Your task to perform on an android device: delete browsing data in the chrome app Image 0: 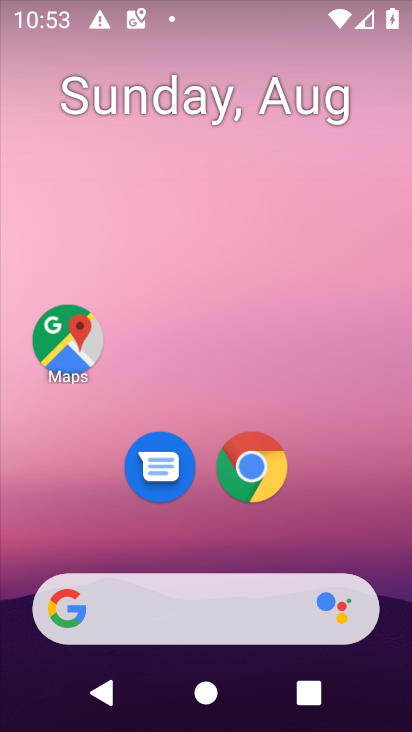
Step 0: drag from (313, 388) to (313, 265)
Your task to perform on an android device: delete browsing data in the chrome app Image 1: 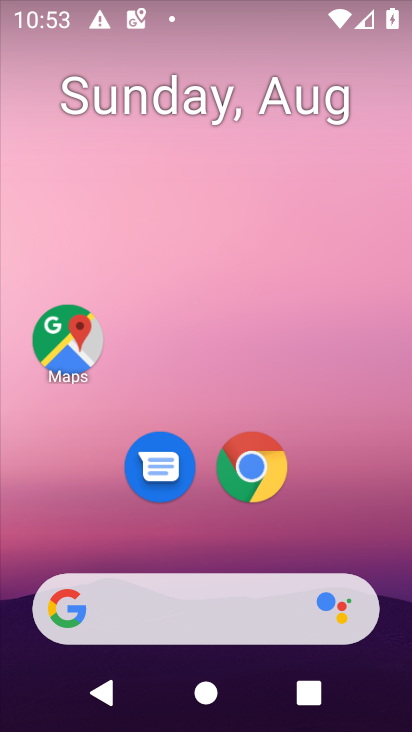
Step 1: drag from (254, 624) to (246, 237)
Your task to perform on an android device: delete browsing data in the chrome app Image 2: 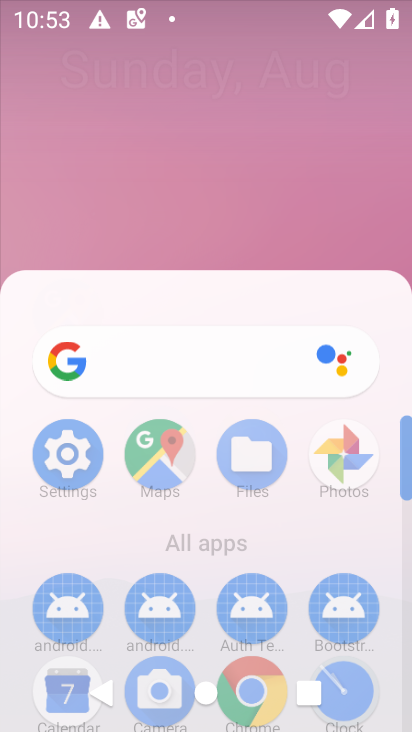
Step 2: drag from (278, 575) to (267, 372)
Your task to perform on an android device: delete browsing data in the chrome app Image 3: 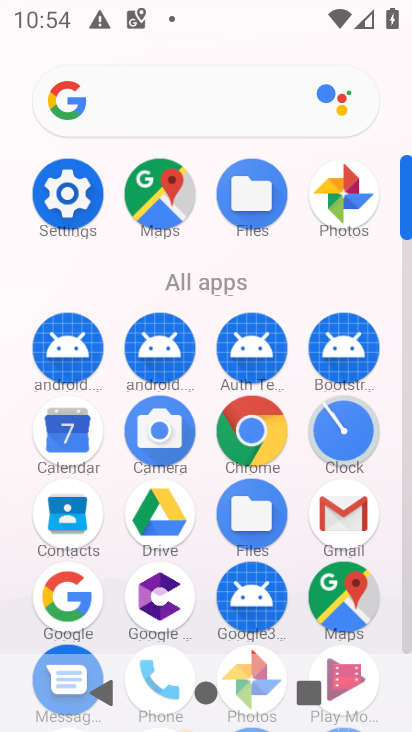
Step 3: click (262, 432)
Your task to perform on an android device: delete browsing data in the chrome app Image 4: 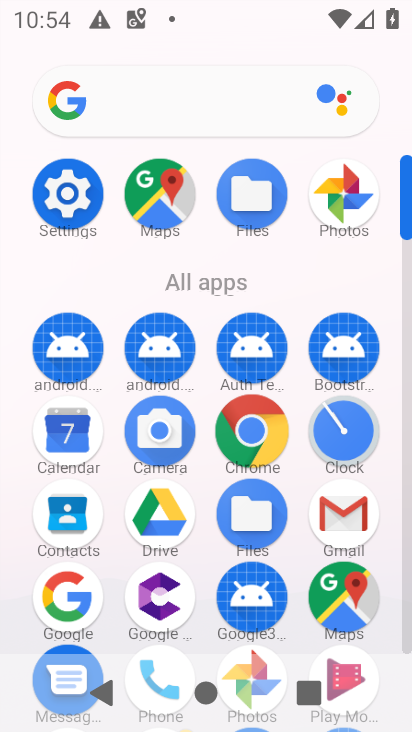
Step 4: click (262, 432)
Your task to perform on an android device: delete browsing data in the chrome app Image 5: 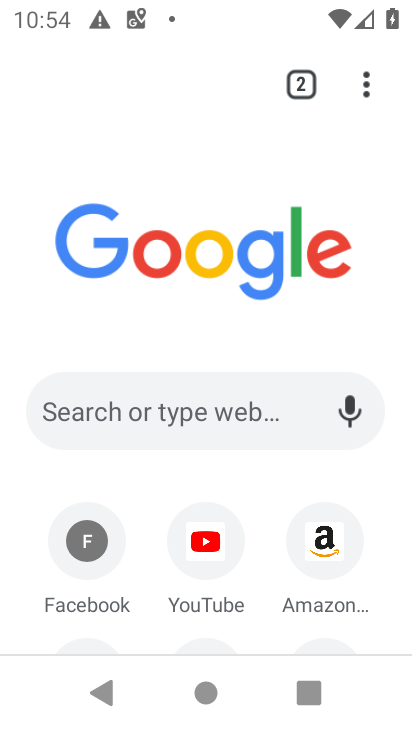
Step 5: click (373, 77)
Your task to perform on an android device: delete browsing data in the chrome app Image 6: 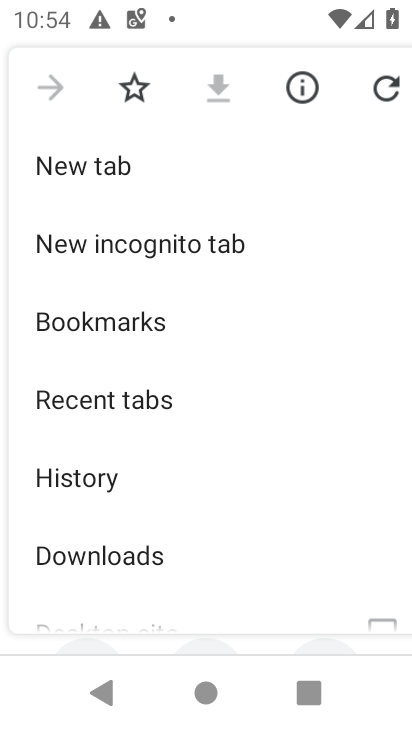
Step 6: click (79, 161)
Your task to perform on an android device: delete browsing data in the chrome app Image 7: 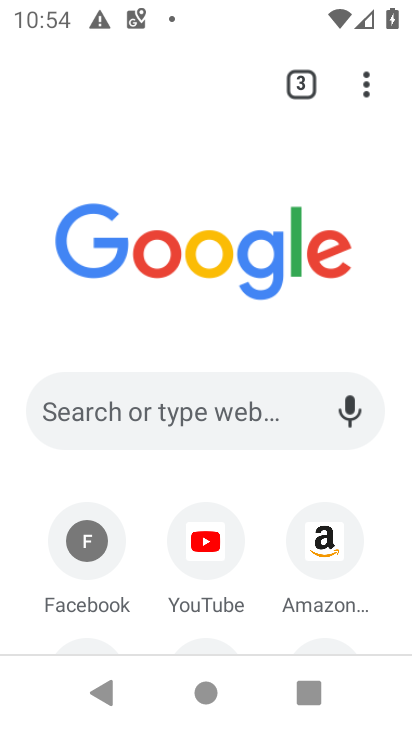
Step 7: drag from (366, 92) to (94, 519)
Your task to perform on an android device: delete browsing data in the chrome app Image 8: 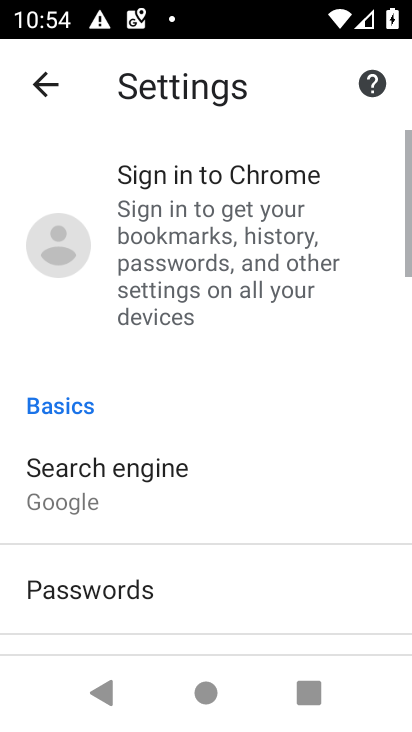
Step 8: click (46, 84)
Your task to perform on an android device: delete browsing data in the chrome app Image 9: 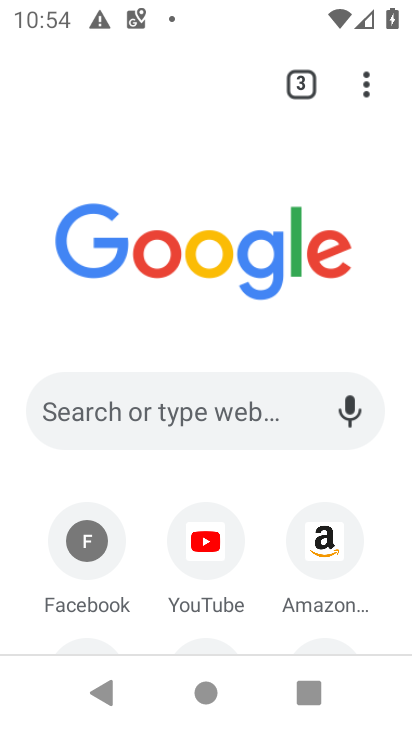
Step 9: drag from (362, 85) to (97, 479)
Your task to perform on an android device: delete browsing data in the chrome app Image 10: 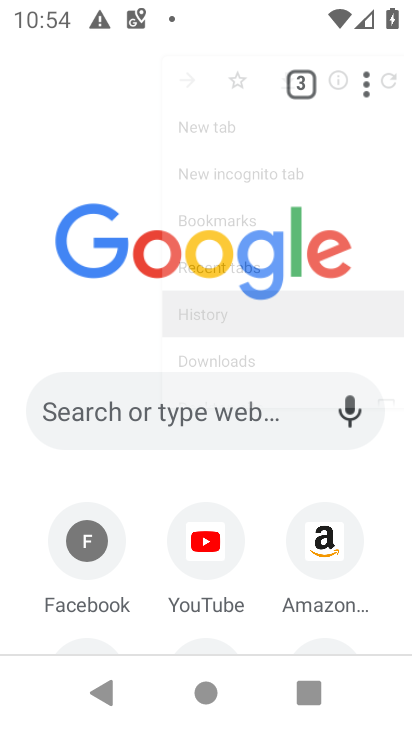
Step 10: click (97, 478)
Your task to perform on an android device: delete browsing data in the chrome app Image 11: 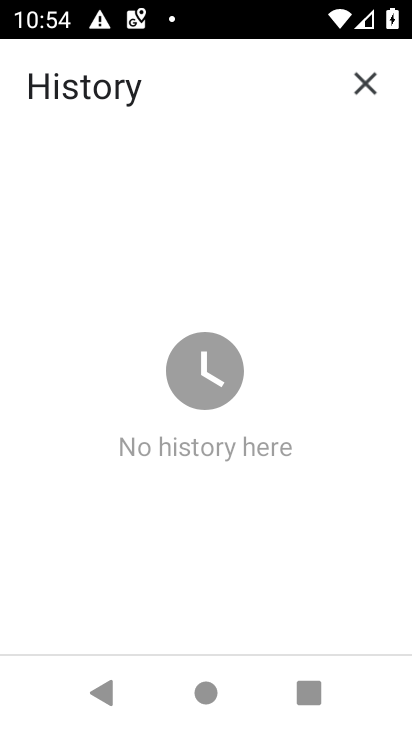
Step 11: click (378, 84)
Your task to perform on an android device: delete browsing data in the chrome app Image 12: 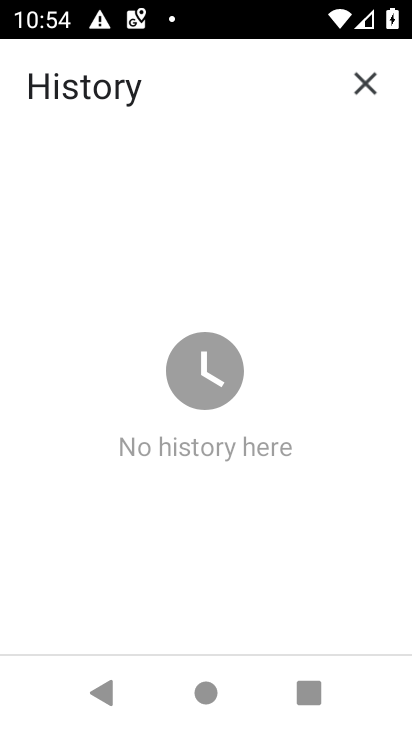
Step 12: task complete